Your task to perform on an android device: snooze an email in the gmail app Image 0: 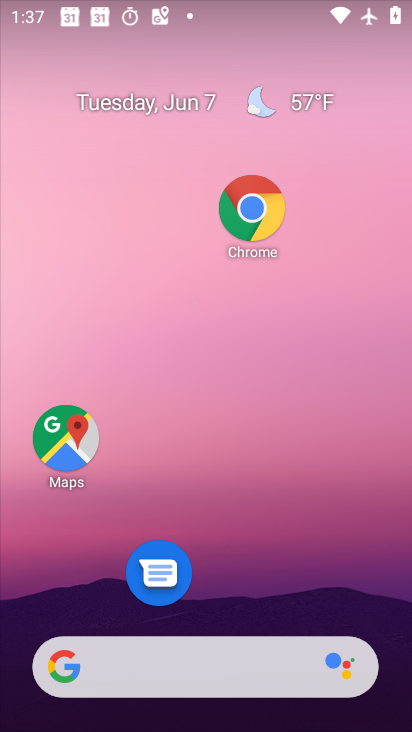
Step 0: drag from (216, 600) to (205, 135)
Your task to perform on an android device: snooze an email in the gmail app Image 1: 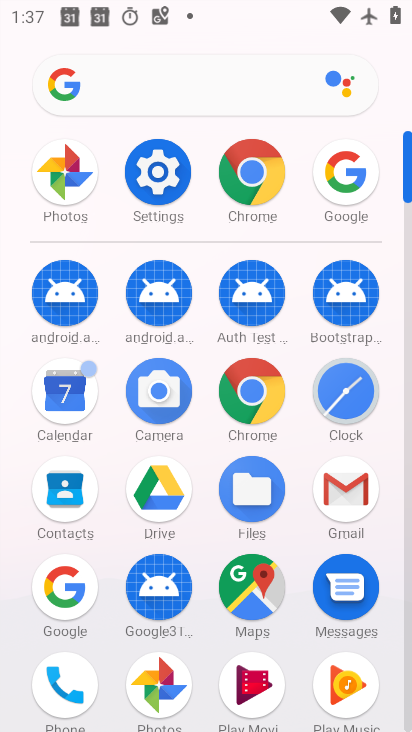
Step 1: click (336, 484)
Your task to perform on an android device: snooze an email in the gmail app Image 2: 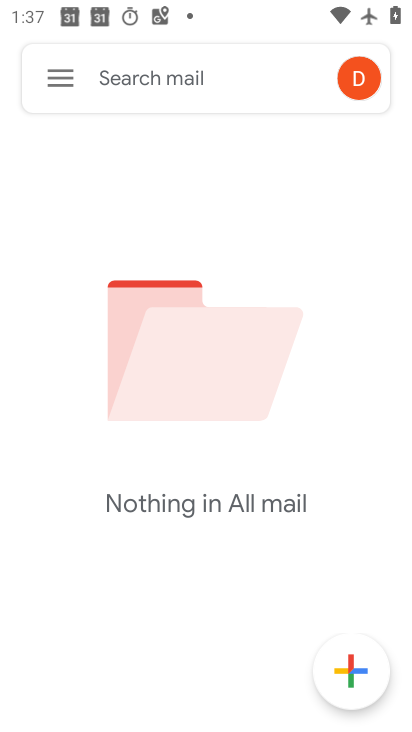
Step 2: click (45, 63)
Your task to perform on an android device: snooze an email in the gmail app Image 3: 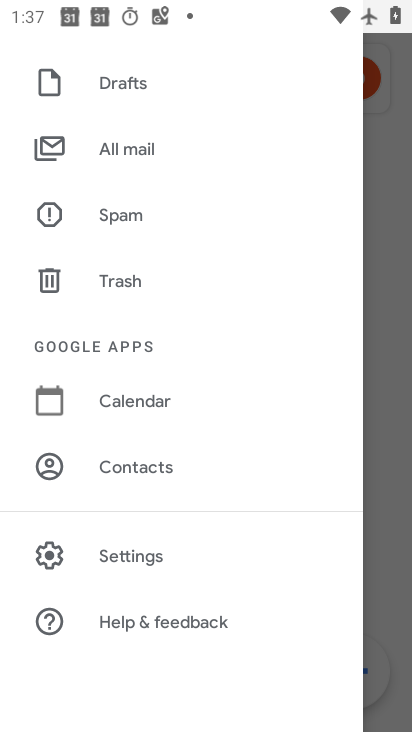
Step 3: click (146, 153)
Your task to perform on an android device: snooze an email in the gmail app Image 4: 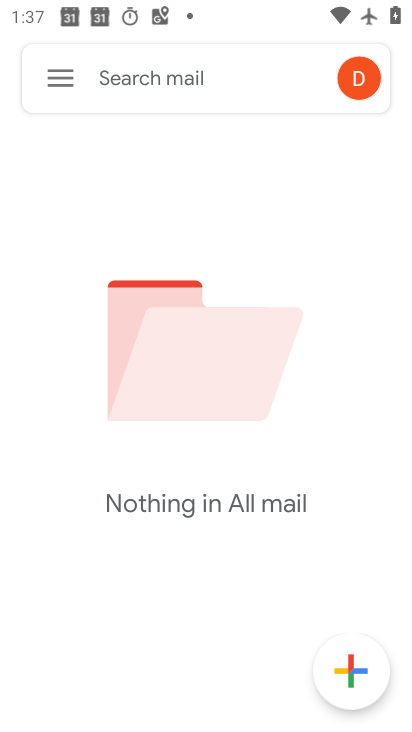
Step 4: task complete